Your task to perform on an android device: open device folders in google photos Image 0: 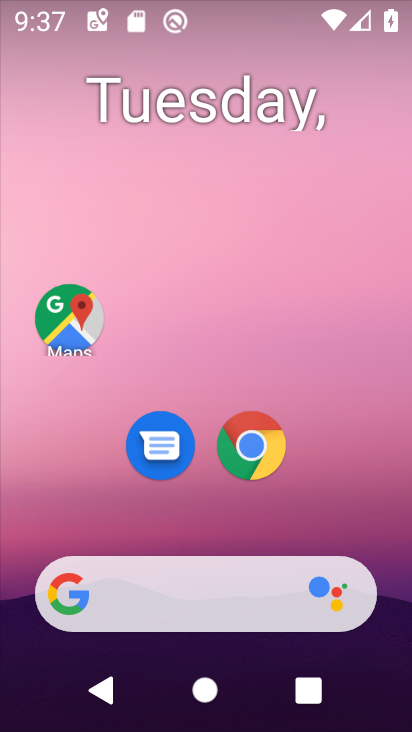
Step 0: drag from (196, 375) to (234, 65)
Your task to perform on an android device: open device folders in google photos Image 1: 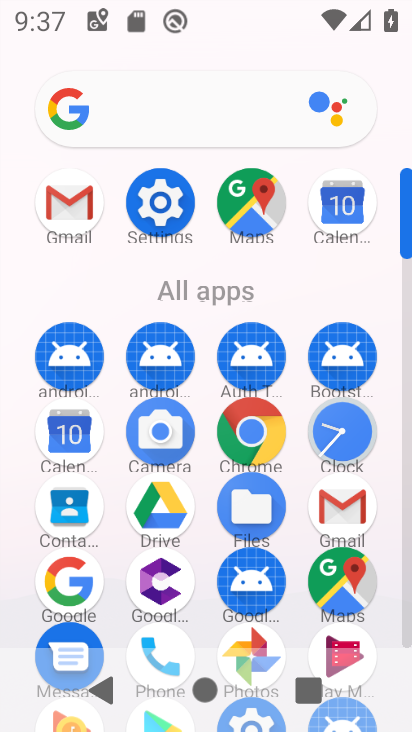
Step 1: drag from (201, 606) to (242, 190)
Your task to perform on an android device: open device folders in google photos Image 2: 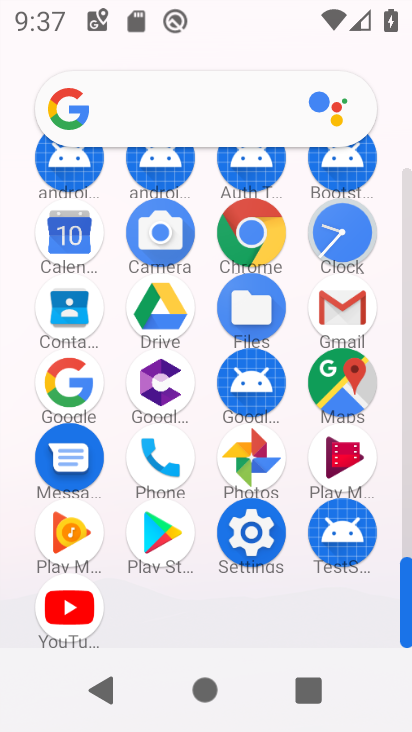
Step 2: click (248, 469)
Your task to perform on an android device: open device folders in google photos Image 3: 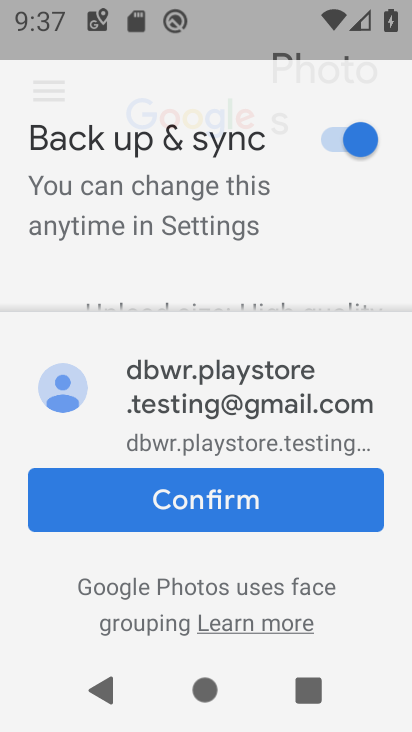
Step 3: click (42, 83)
Your task to perform on an android device: open device folders in google photos Image 4: 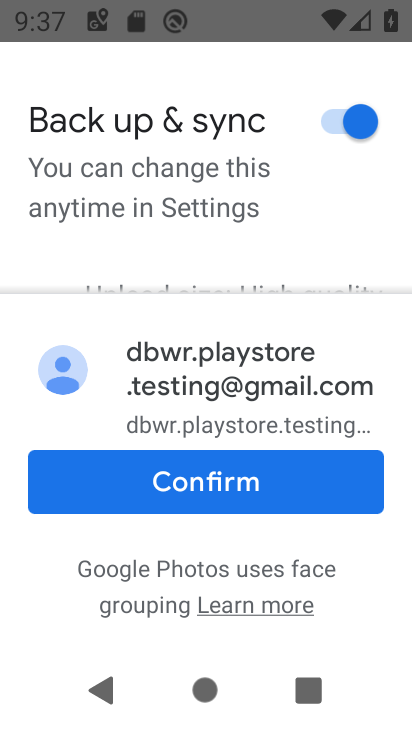
Step 4: click (195, 479)
Your task to perform on an android device: open device folders in google photos Image 5: 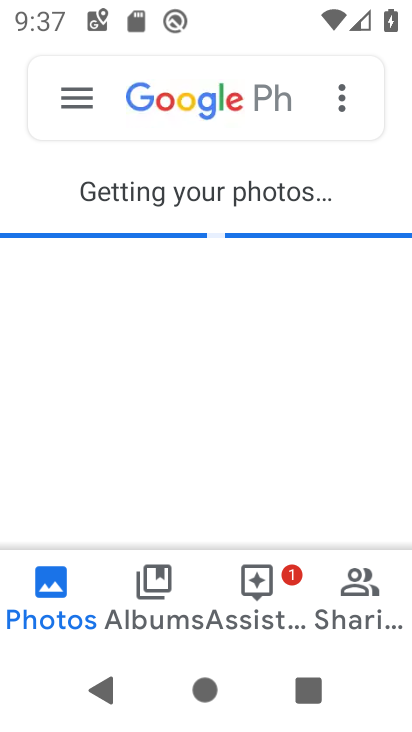
Step 5: click (72, 88)
Your task to perform on an android device: open device folders in google photos Image 6: 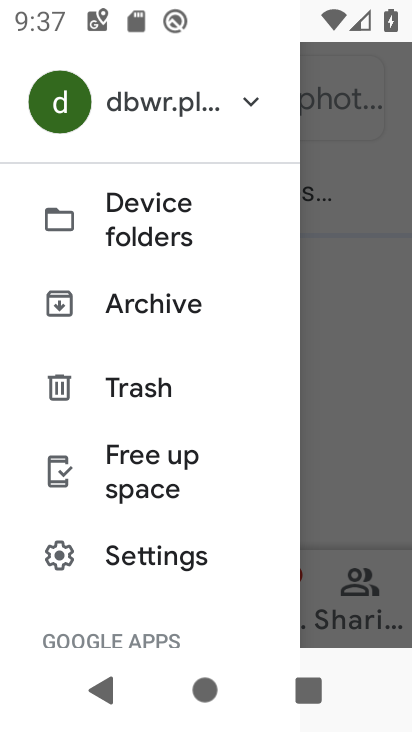
Step 6: click (143, 234)
Your task to perform on an android device: open device folders in google photos Image 7: 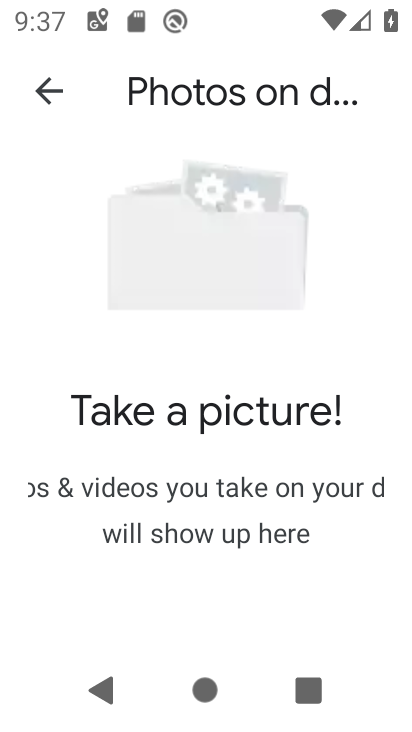
Step 7: task complete